Your task to perform on an android device: clear history in the chrome app Image 0: 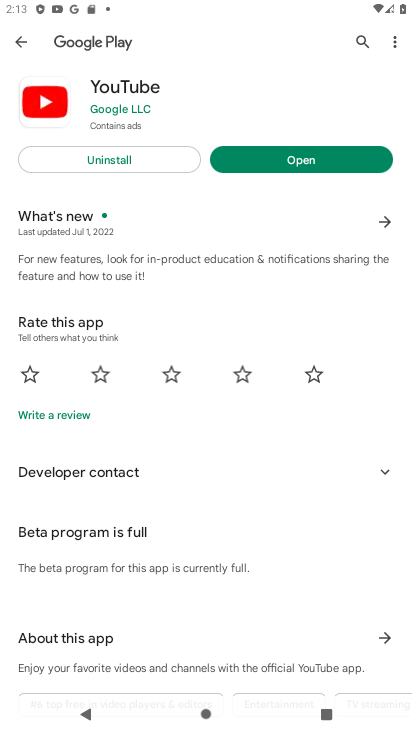
Step 0: press home button
Your task to perform on an android device: clear history in the chrome app Image 1: 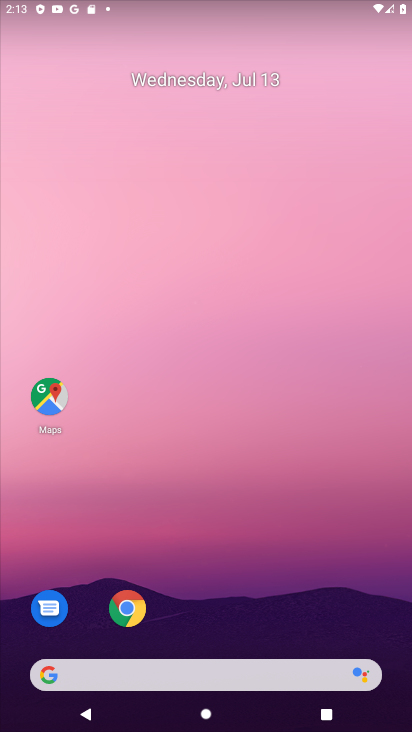
Step 1: click (149, 610)
Your task to perform on an android device: clear history in the chrome app Image 2: 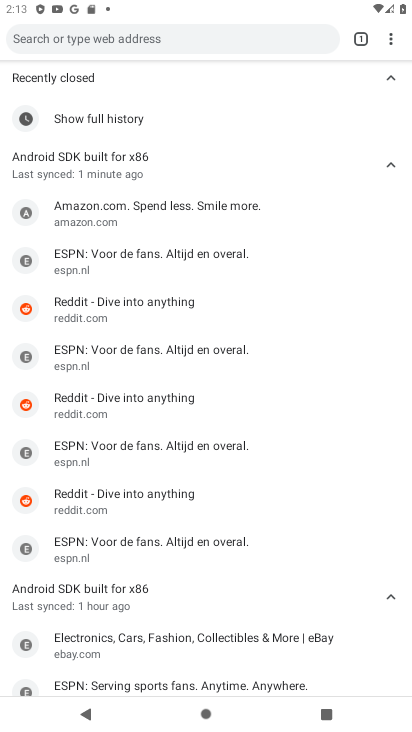
Step 2: click (397, 33)
Your task to perform on an android device: clear history in the chrome app Image 3: 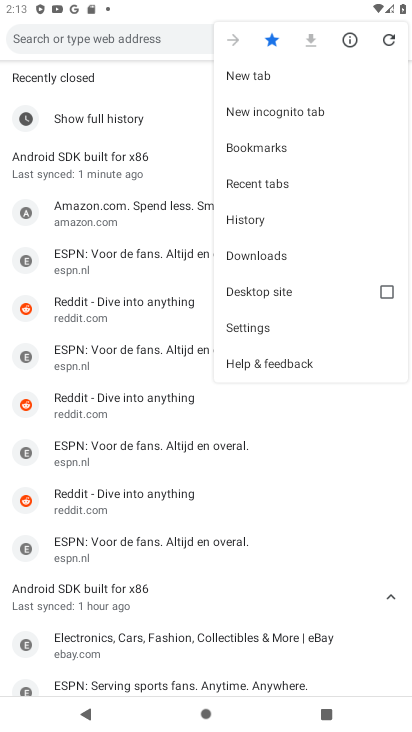
Step 3: click (241, 216)
Your task to perform on an android device: clear history in the chrome app Image 4: 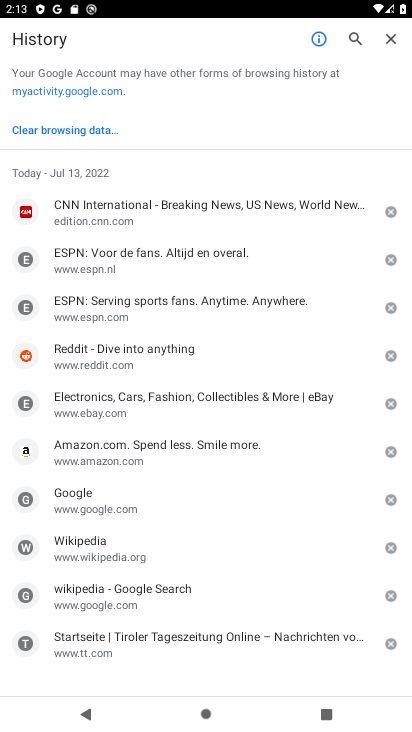
Step 4: click (93, 137)
Your task to perform on an android device: clear history in the chrome app Image 5: 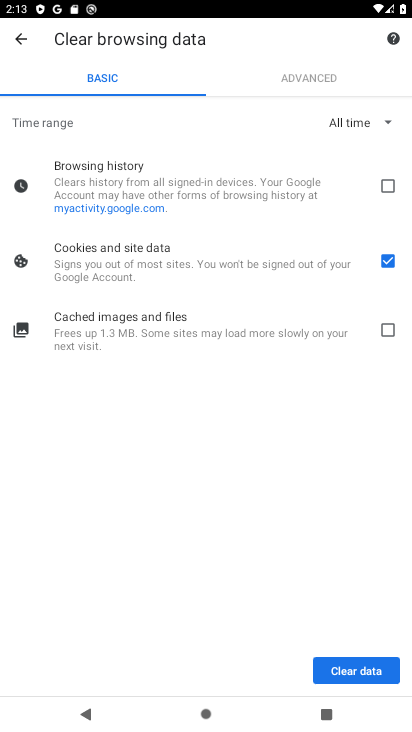
Step 5: click (390, 185)
Your task to perform on an android device: clear history in the chrome app Image 6: 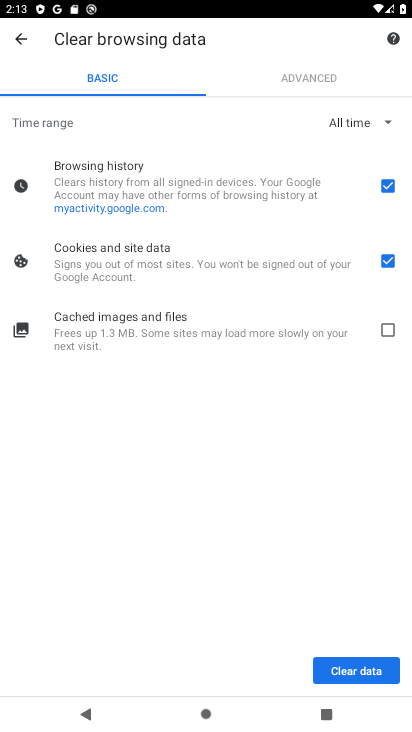
Step 6: click (388, 260)
Your task to perform on an android device: clear history in the chrome app Image 7: 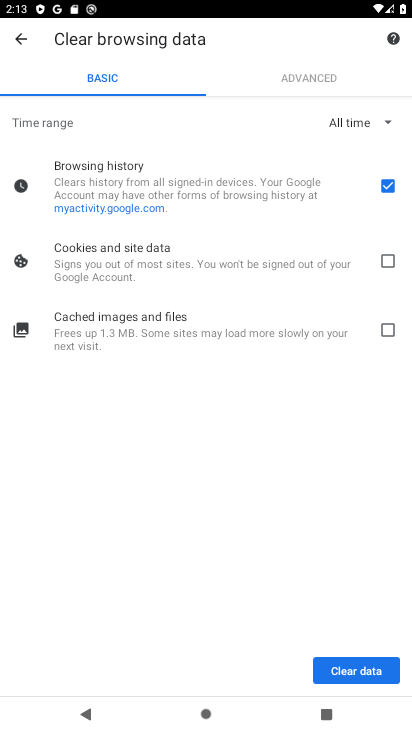
Step 7: click (350, 674)
Your task to perform on an android device: clear history in the chrome app Image 8: 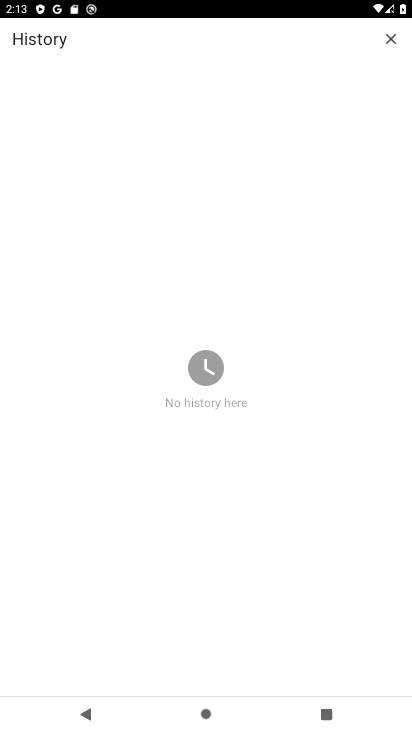
Step 8: task complete